Your task to perform on an android device: Go to Yahoo.com Image 0: 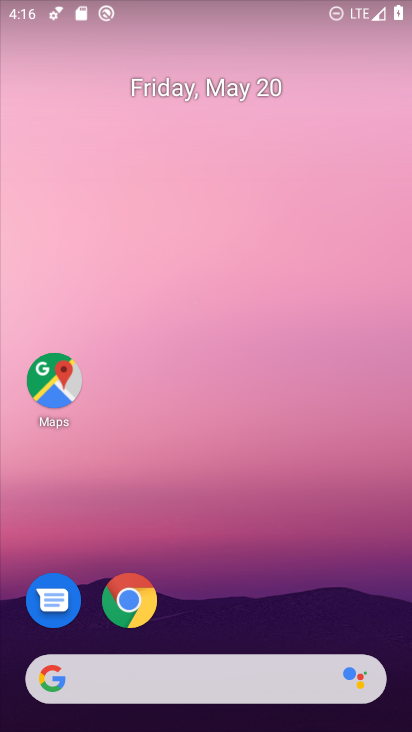
Step 0: click (138, 600)
Your task to perform on an android device: Go to Yahoo.com Image 1: 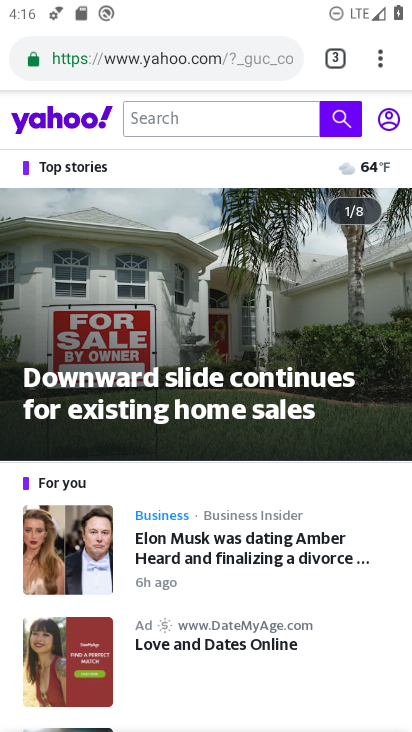
Step 1: task complete